Your task to perform on an android device: set the stopwatch Image 0: 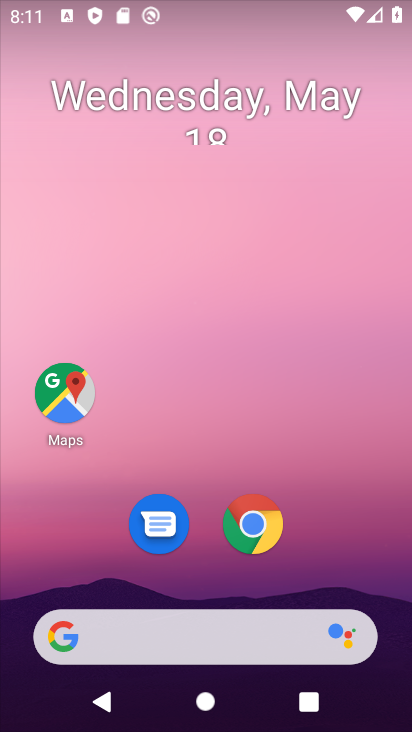
Step 0: drag from (328, 526) to (295, 45)
Your task to perform on an android device: set the stopwatch Image 1: 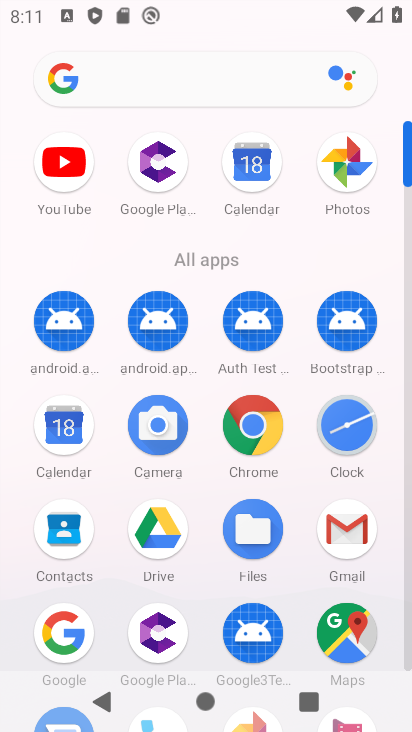
Step 1: click (346, 419)
Your task to perform on an android device: set the stopwatch Image 2: 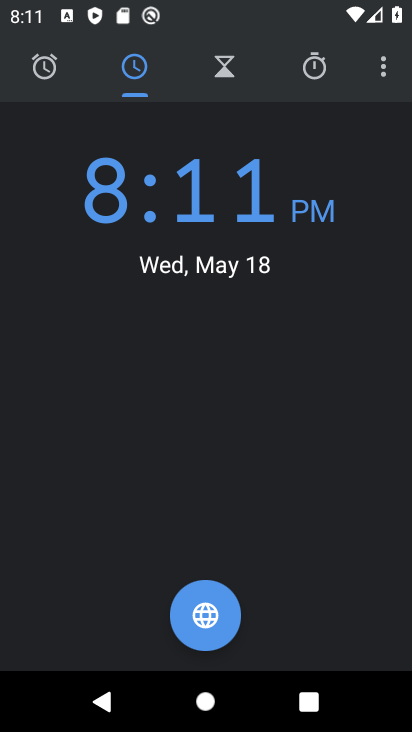
Step 2: click (318, 70)
Your task to perform on an android device: set the stopwatch Image 3: 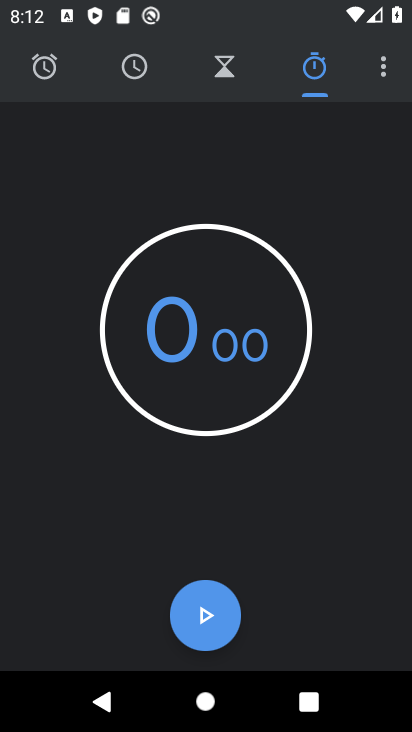
Step 3: task complete